Your task to perform on an android device: turn on javascript in the chrome app Image 0: 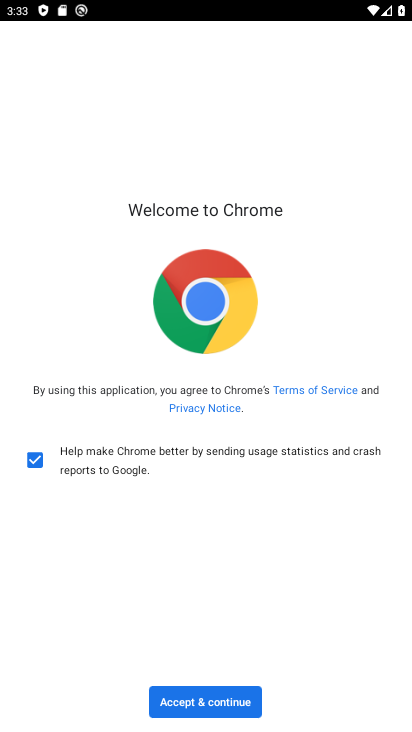
Step 0: click (232, 704)
Your task to perform on an android device: turn on javascript in the chrome app Image 1: 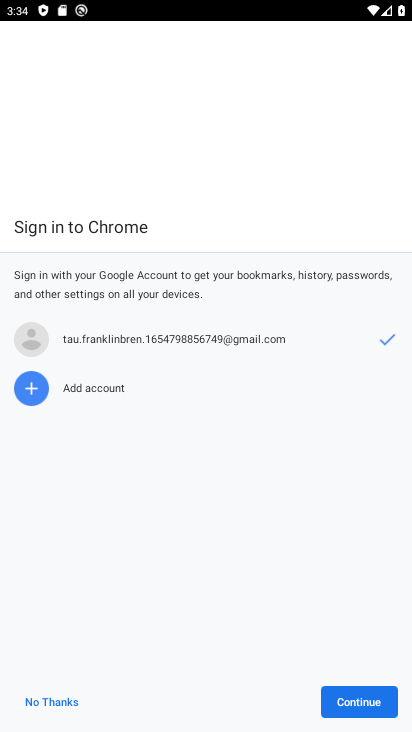
Step 1: click (64, 701)
Your task to perform on an android device: turn on javascript in the chrome app Image 2: 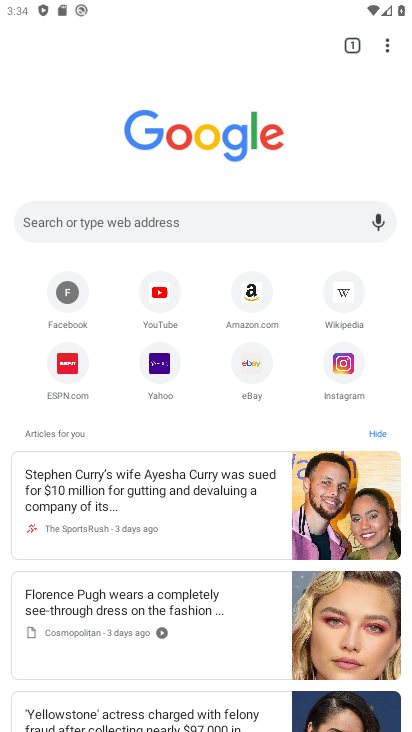
Step 2: drag from (389, 45) to (226, 392)
Your task to perform on an android device: turn on javascript in the chrome app Image 3: 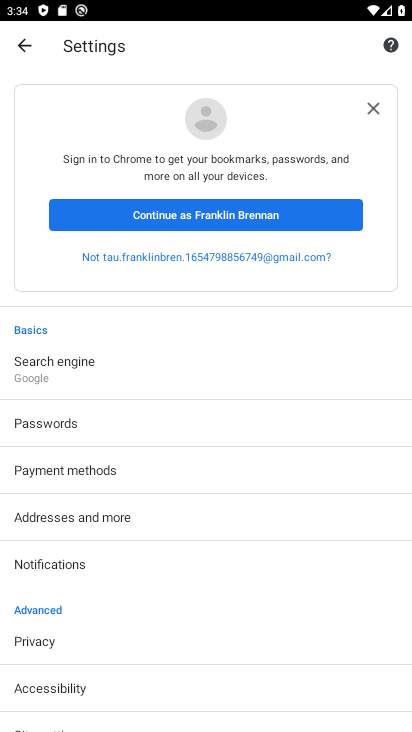
Step 3: drag from (115, 637) to (121, 253)
Your task to perform on an android device: turn on javascript in the chrome app Image 4: 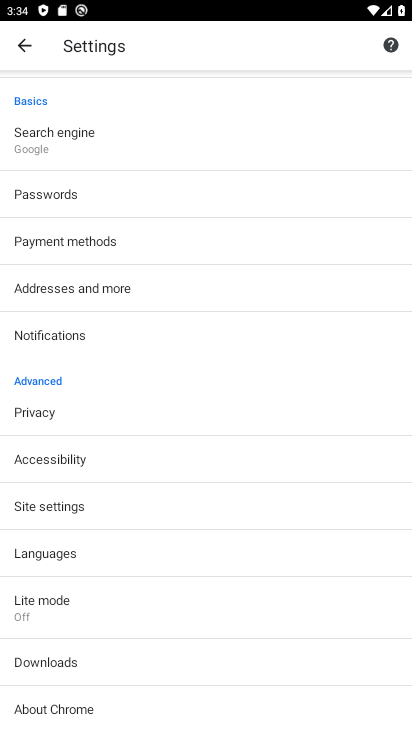
Step 4: click (71, 516)
Your task to perform on an android device: turn on javascript in the chrome app Image 5: 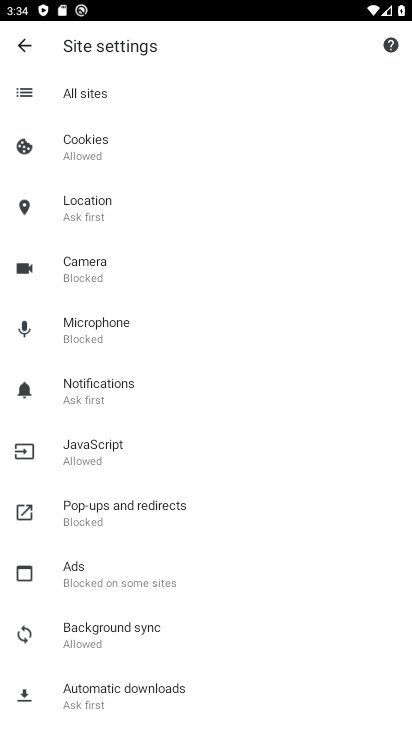
Step 5: click (50, 459)
Your task to perform on an android device: turn on javascript in the chrome app Image 6: 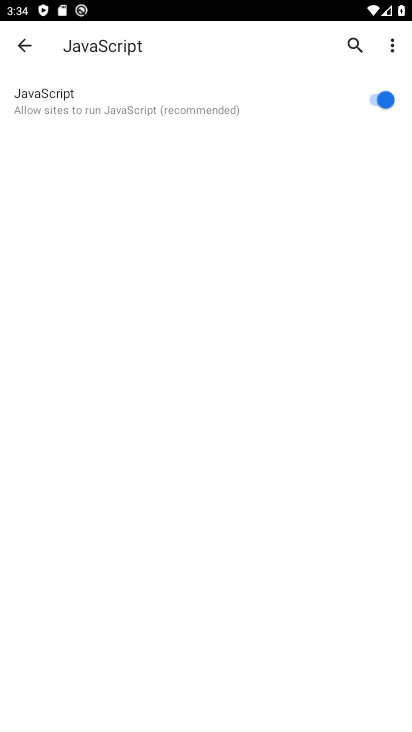
Step 6: task complete